Your task to perform on an android device: Open Google Chrome and click the shortcut for Amazon.com Image 0: 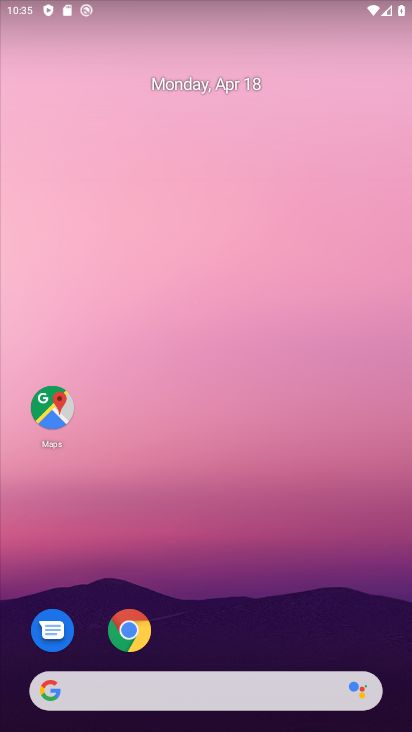
Step 0: click (128, 624)
Your task to perform on an android device: Open Google Chrome and click the shortcut for Amazon.com Image 1: 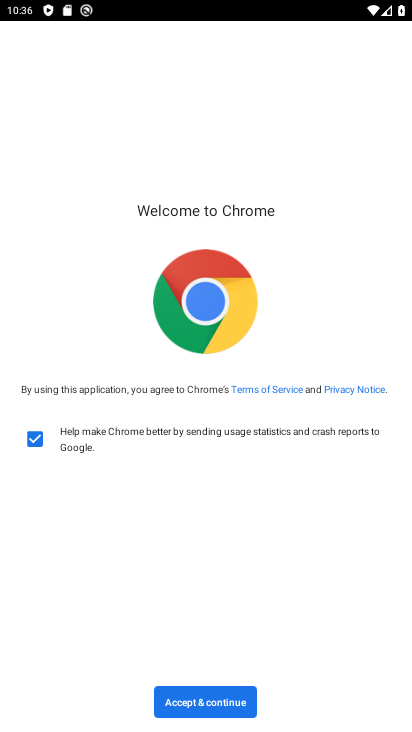
Step 1: click (198, 696)
Your task to perform on an android device: Open Google Chrome and click the shortcut for Amazon.com Image 2: 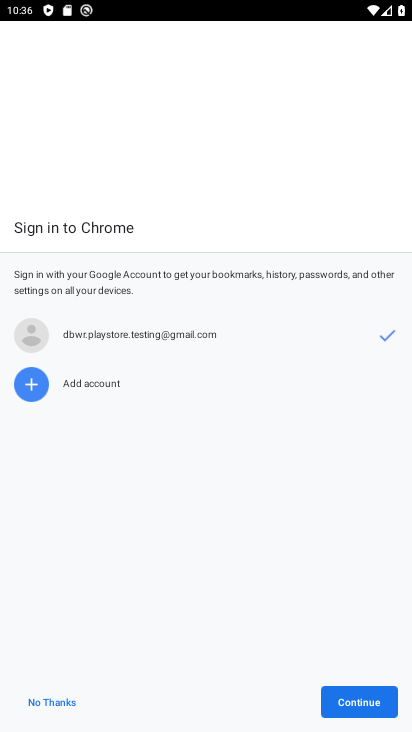
Step 2: click (389, 703)
Your task to perform on an android device: Open Google Chrome and click the shortcut for Amazon.com Image 3: 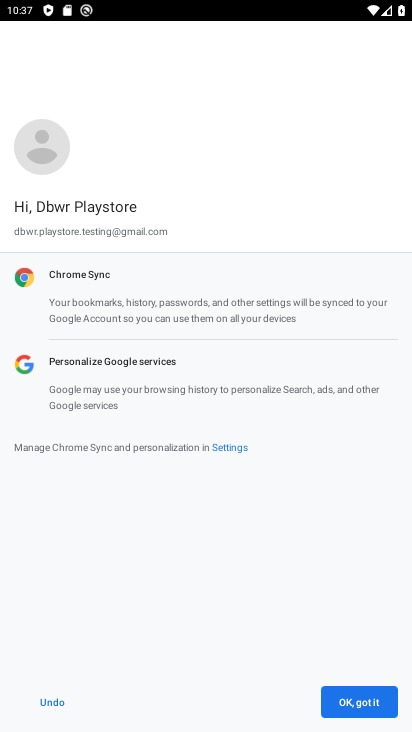
Step 3: click (356, 703)
Your task to perform on an android device: Open Google Chrome and click the shortcut for Amazon.com Image 4: 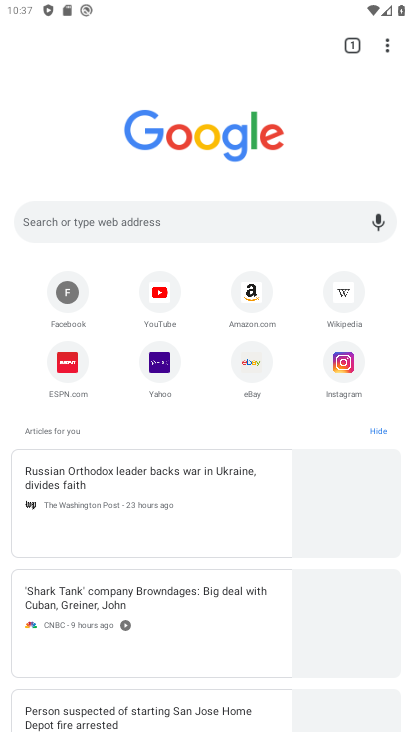
Step 4: click (252, 279)
Your task to perform on an android device: Open Google Chrome and click the shortcut for Amazon.com Image 5: 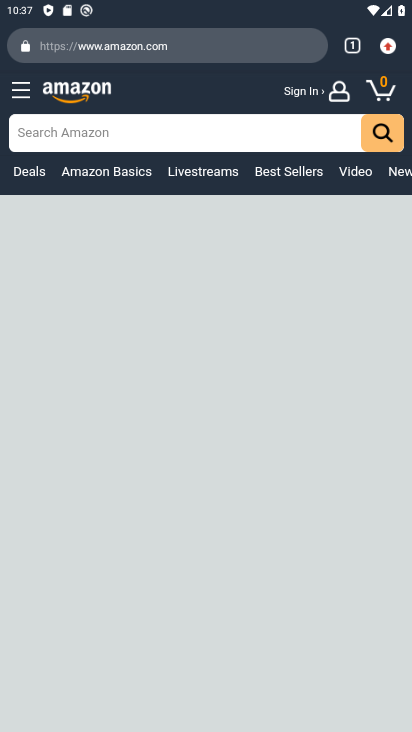
Step 5: task complete